Your task to perform on an android device: check battery use Image 0: 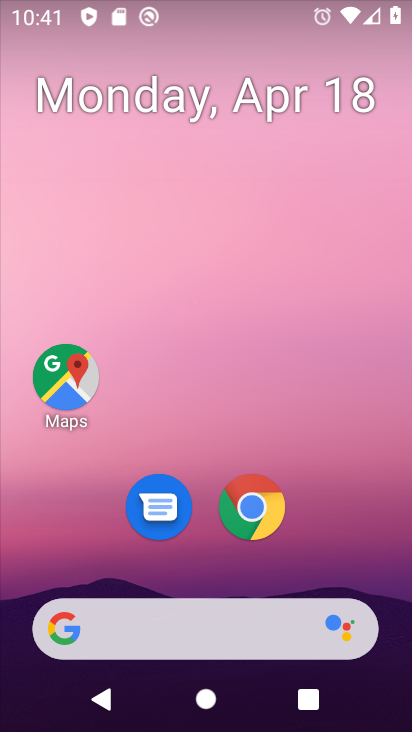
Step 0: drag from (243, 646) to (287, 139)
Your task to perform on an android device: check battery use Image 1: 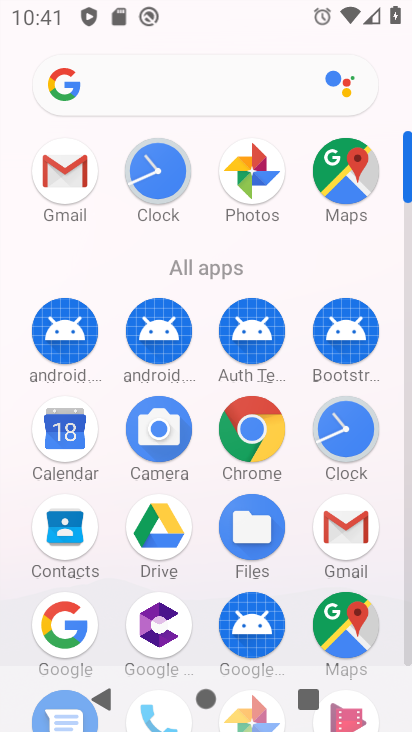
Step 1: drag from (208, 567) to (247, 361)
Your task to perform on an android device: check battery use Image 2: 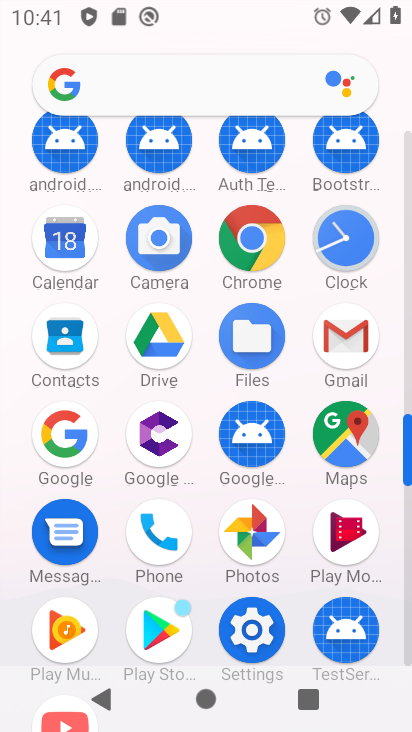
Step 2: click (259, 633)
Your task to perform on an android device: check battery use Image 3: 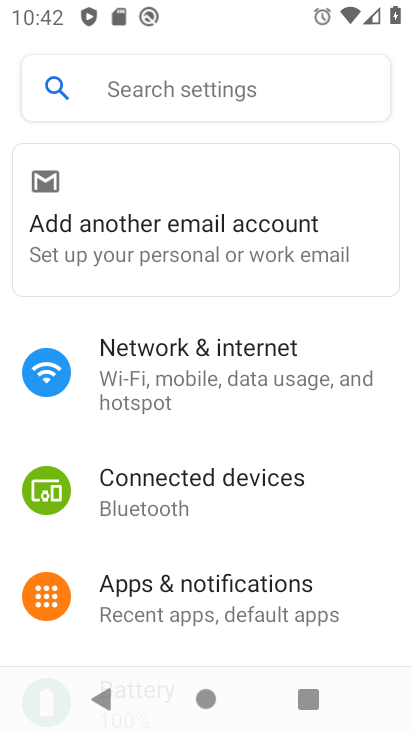
Step 3: click (220, 95)
Your task to perform on an android device: check battery use Image 4: 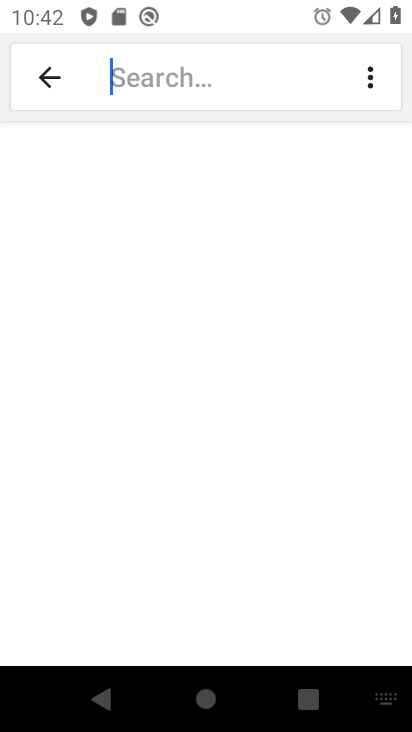
Step 4: click (384, 693)
Your task to perform on an android device: check battery use Image 5: 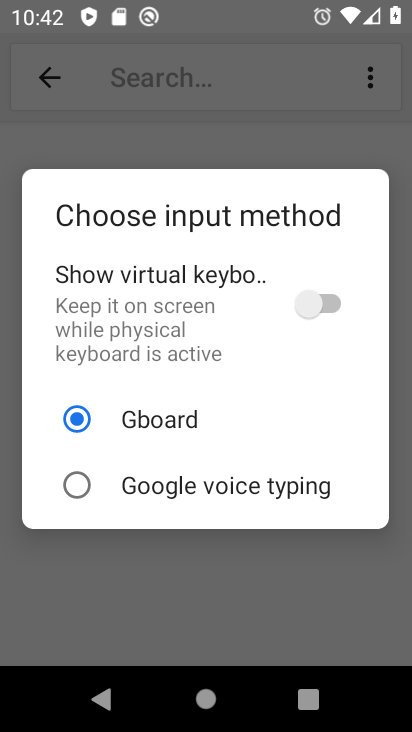
Step 5: click (322, 308)
Your task to perform on an android device: check battery use Image 6: 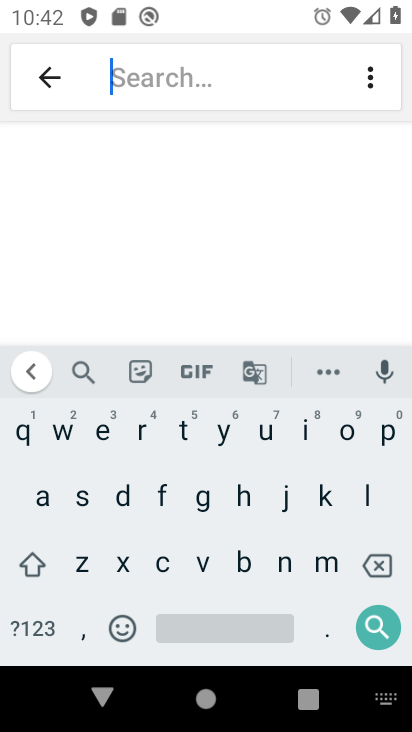
Step 6: click (248, 559)
Your task to perform on an android device: check battery use Image 7: 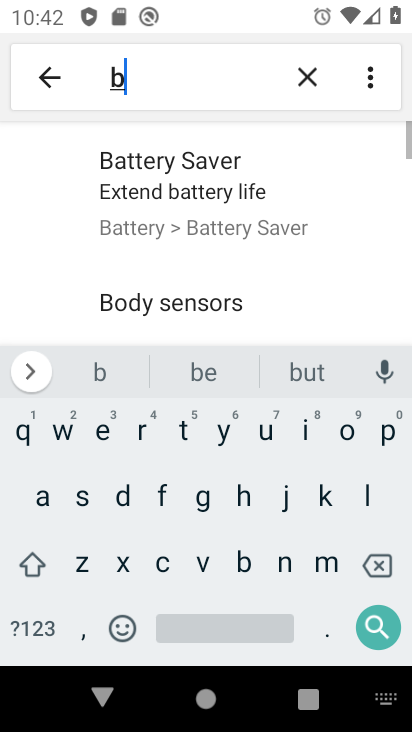
Step 7: click (45, 494)
Your task to perform on an android device: check battery use Image 8: 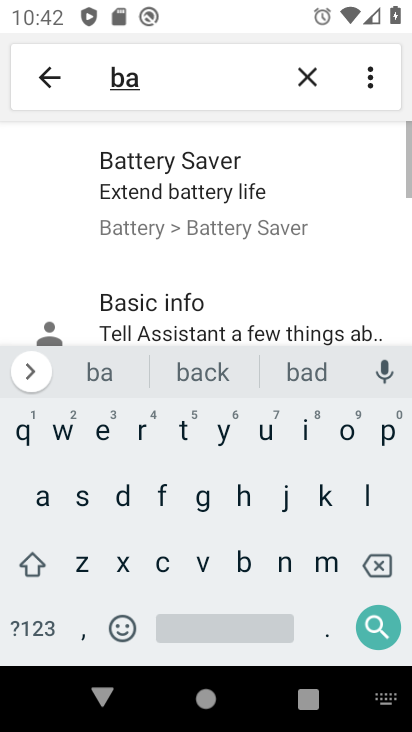
Step 8: click (178, 438)
Your task to perform on an android device: check battery use Image 9: 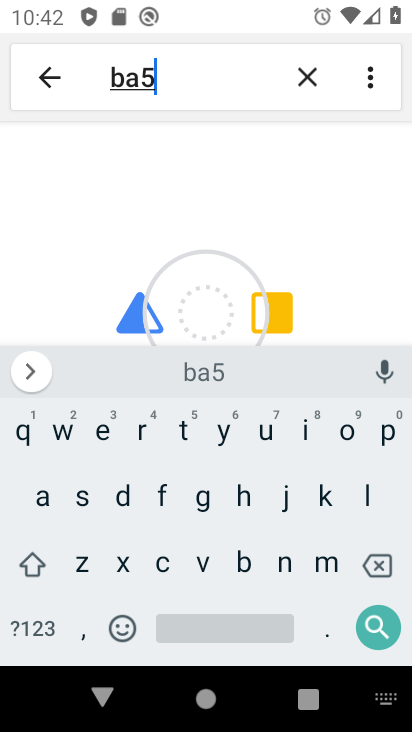
Step 9: click (372, 563)
Your task to perform on an android device: check battery use Image 10: 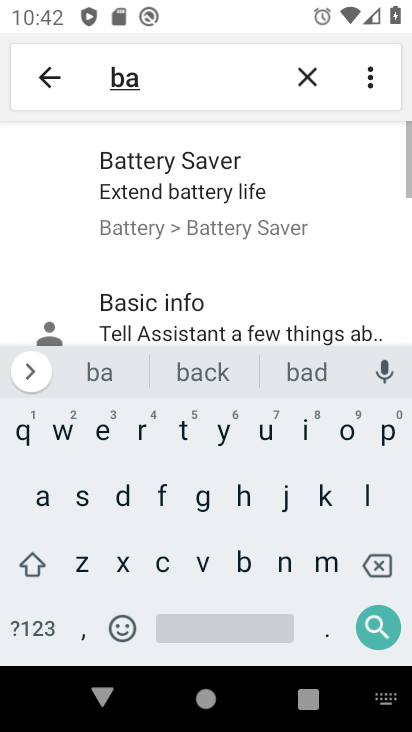
Step 10: click (186, 441)
Your task to perform on an android device: check battery use Image 11: 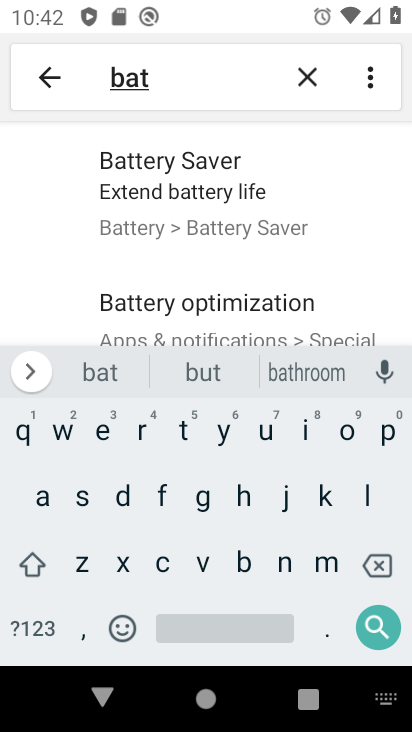
Step 11: click (179, 438)
Your task to perform on an android device: check battery use Image 12: 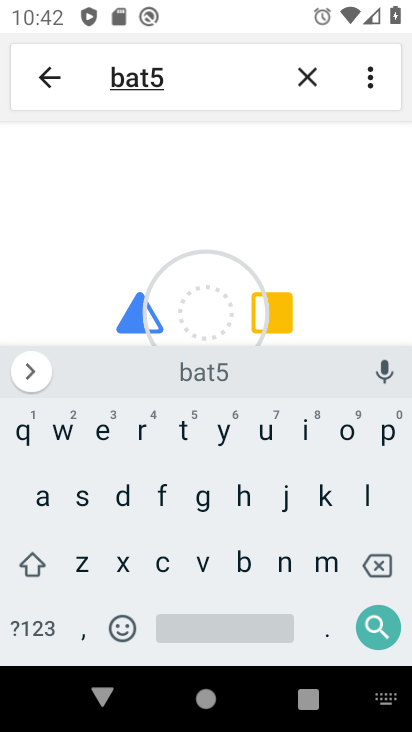
Step 12: click (375, 569)
Your task to perform on an android device: check battery use Image 13: 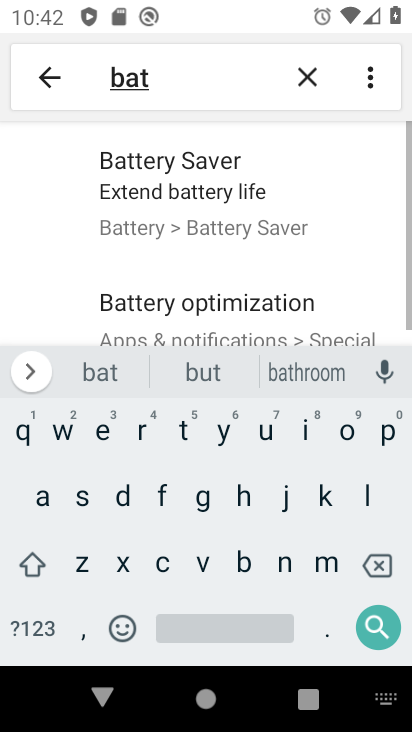
Step 13: click (182, 444)
Your task to perform on an android device: check battery use Image 14: 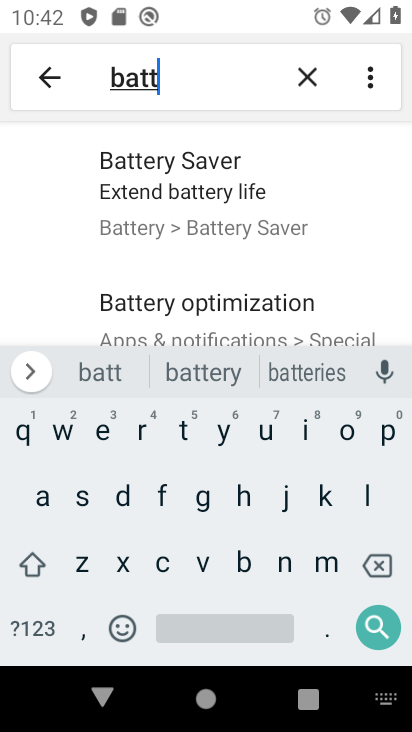
Step 14: click (192, 369)
Your task to perform on an android device: check battery use Image 15: 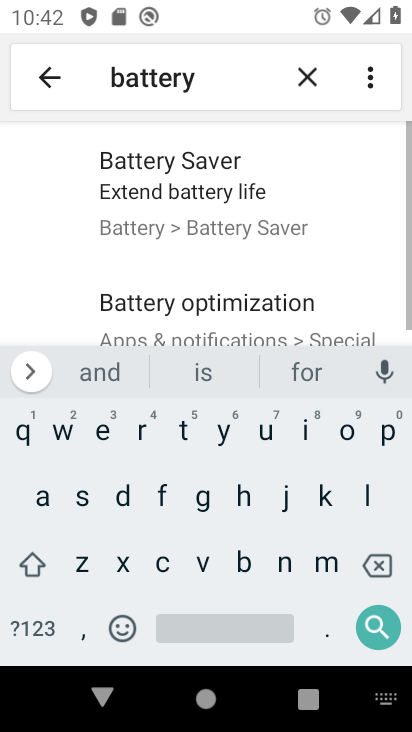
Step 15: click (259, 442)
Your task to perform on an android device: check battery use Image 16: 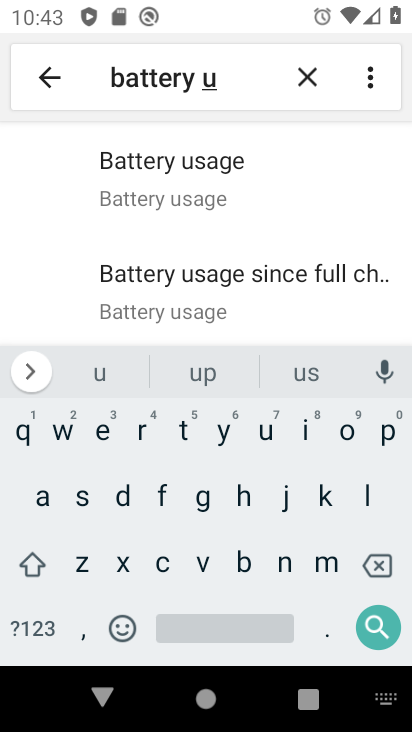
Step 16: click (191, 202)
Your task to perform on an android device: check battery use Image 17: 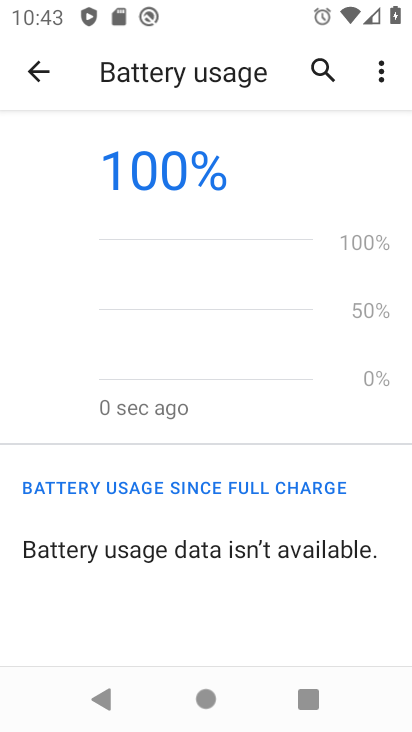
Step 17: task complete